Your task to perform on an android device: Go to settings Image 0: 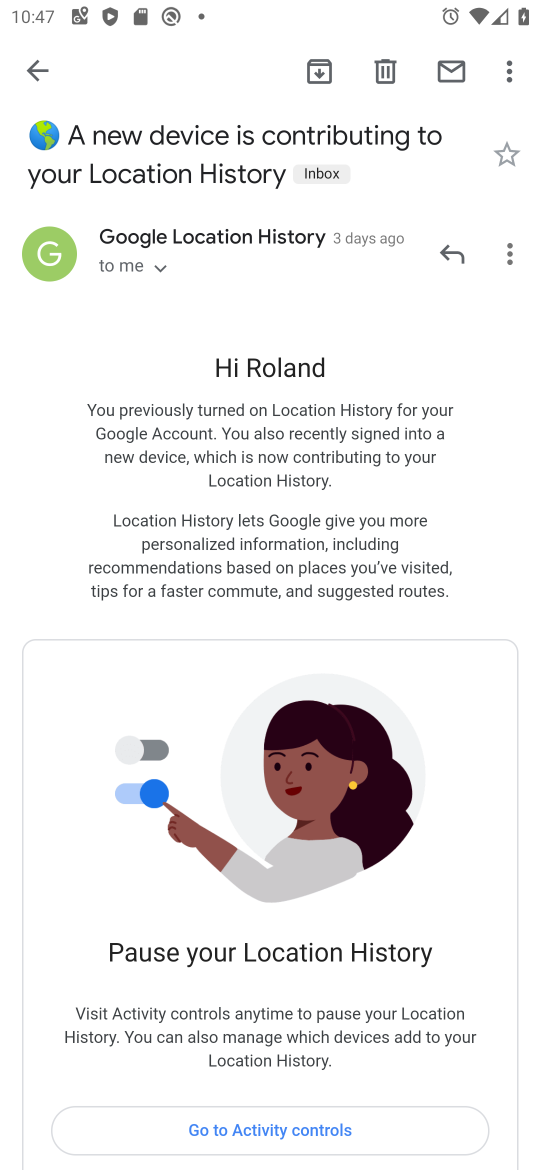
Step 0: press home button
Your task to perform on an android device: Go to settings Image 1: 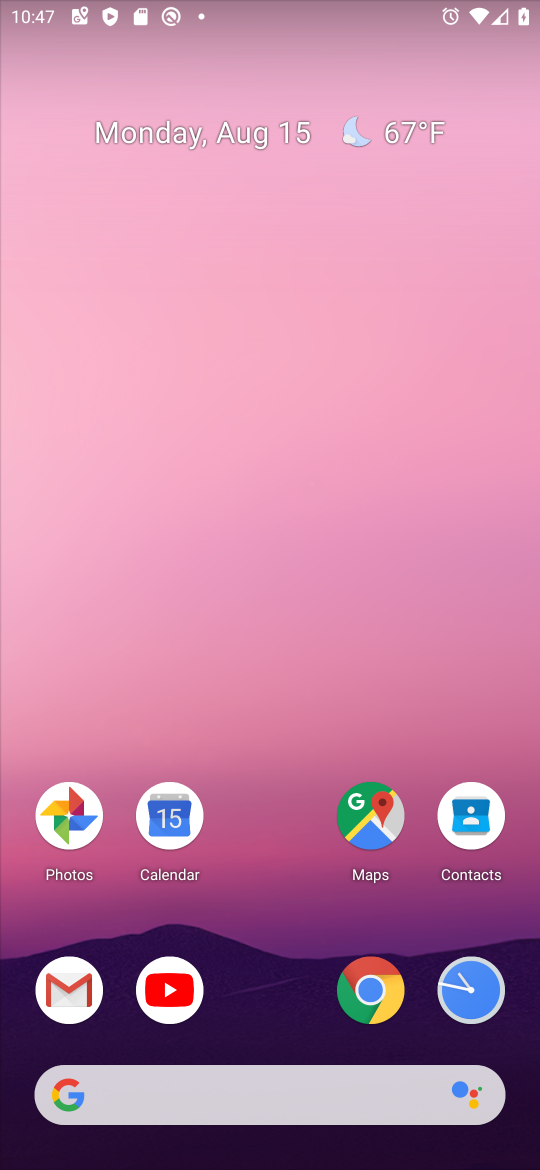
Step 1: drag from (246, 947) to (244, 149)
Your task to perform on an android device: Go to settings Image 2: 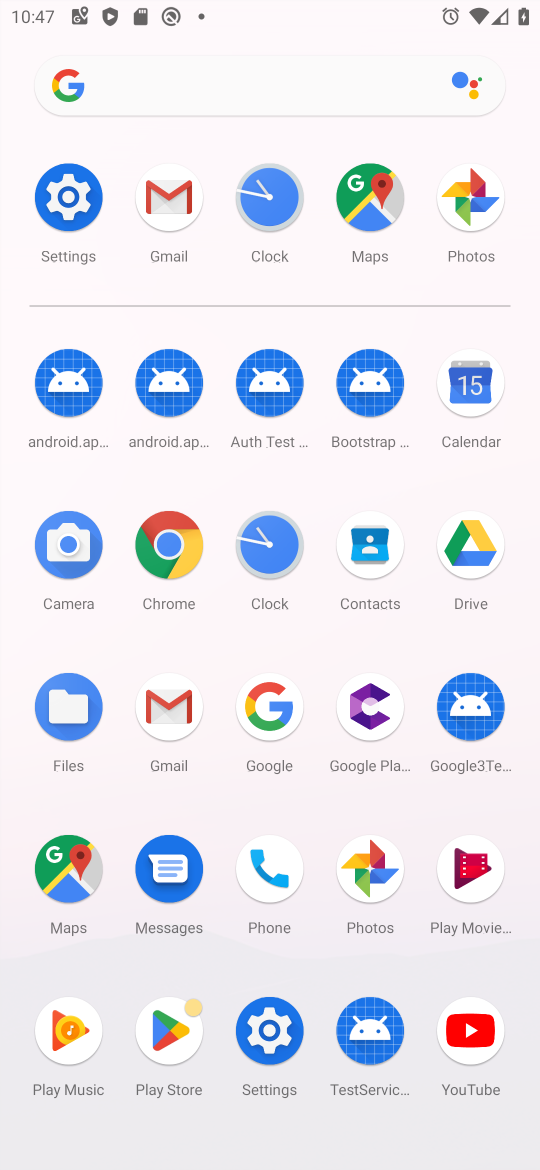
Step 2: click (76, 191)
Your task to perform on an android device: Go to settings Image 3: 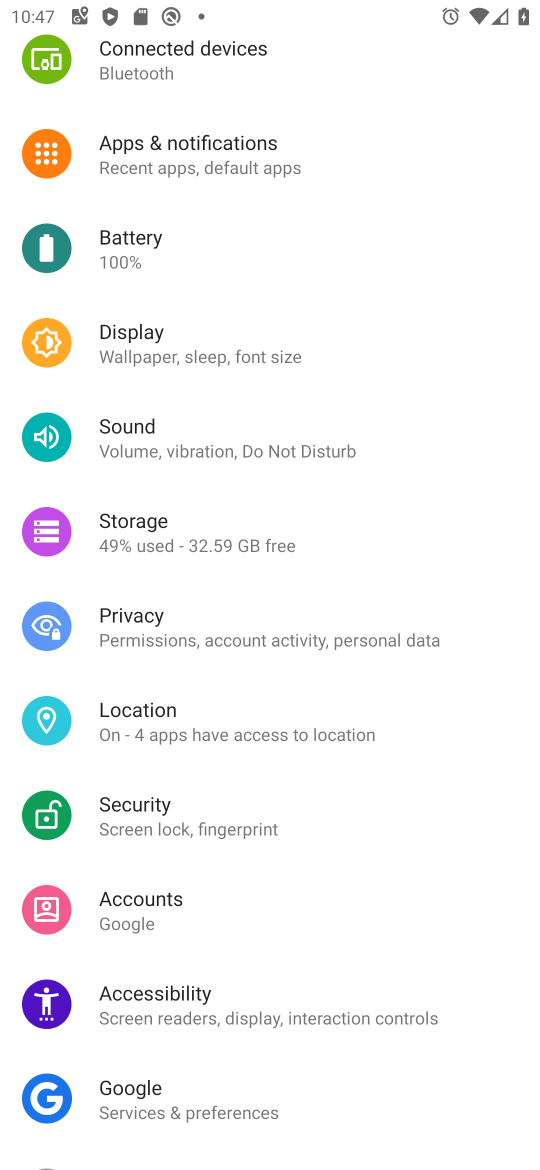
Step 3: task complete